Your task to perform on an android device: turn smart compose on in the gmail app Image 0: 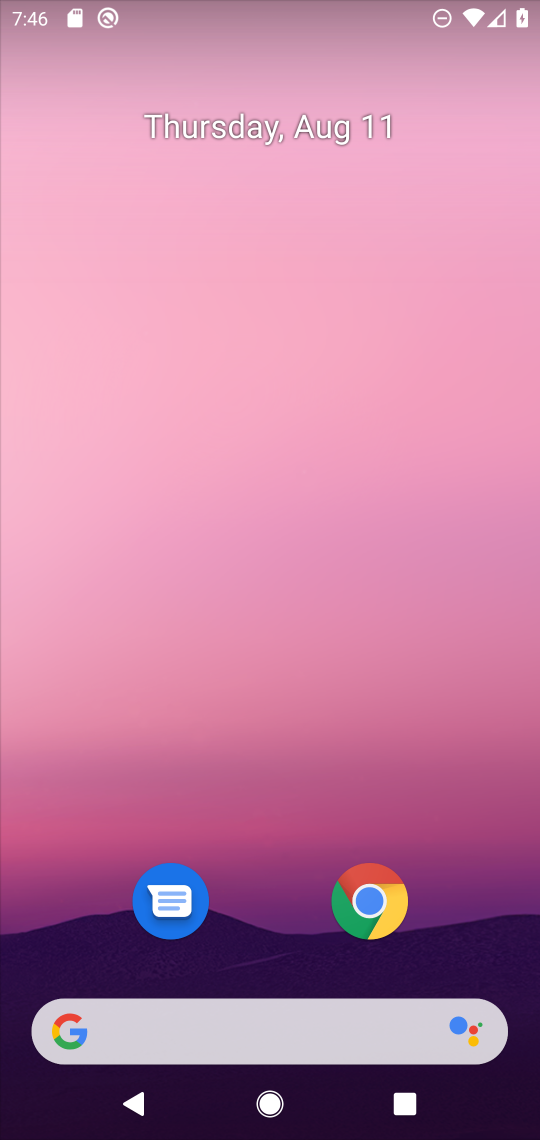
Step 0: drag from (246, 917) to (363, 155)
Your task to perform on an android device: turn smart compose on in the gmail app Image 1: 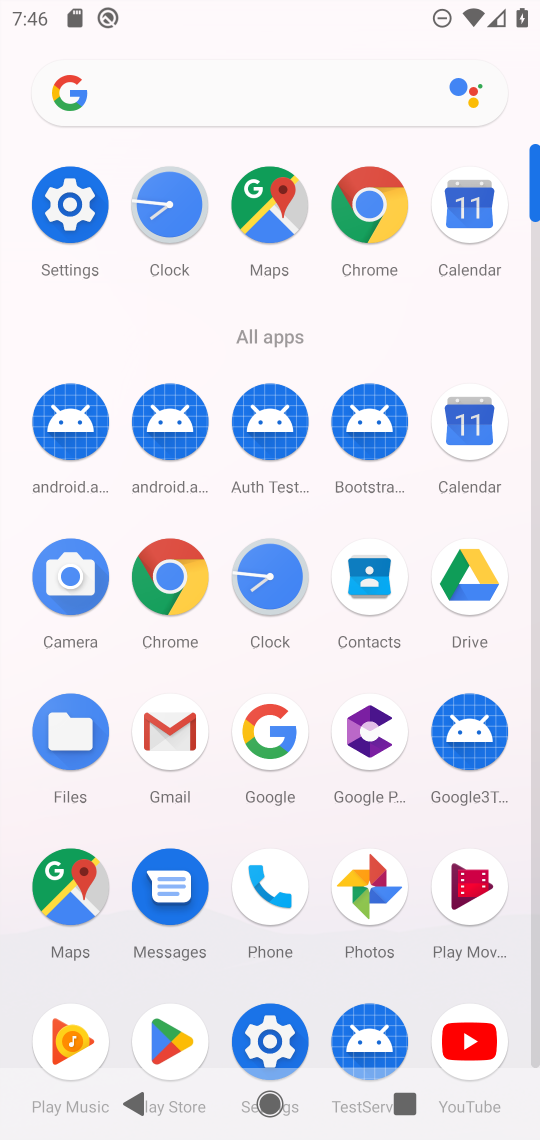
Step 1: click (168, 723)
Your task to perform on an android device: turn smart compose on in the gmail app Image 2: 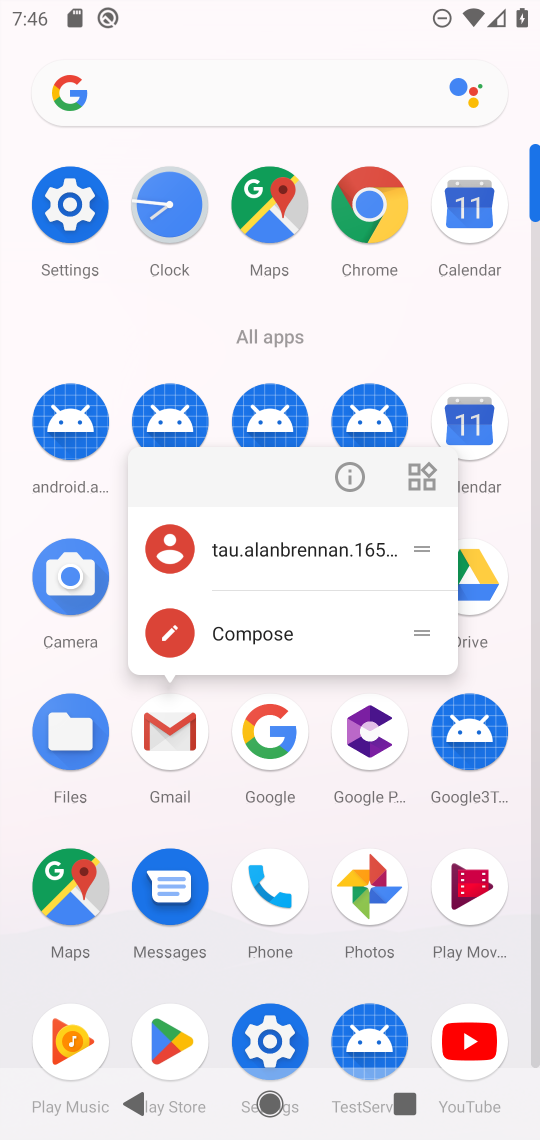
Step 2: click (168, 731)
Your task to perform on an android device: turn smart compose on in the gmail app Image 3: 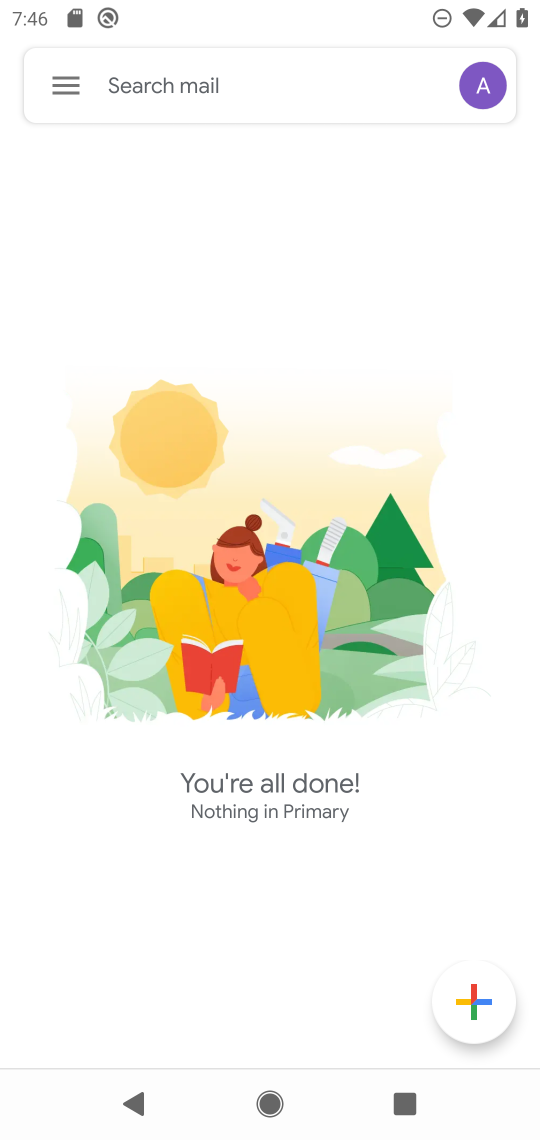
Step 3: click (65, 85)
Your task to perform on an android device: turn smart compose on in the gmail app Image 4: 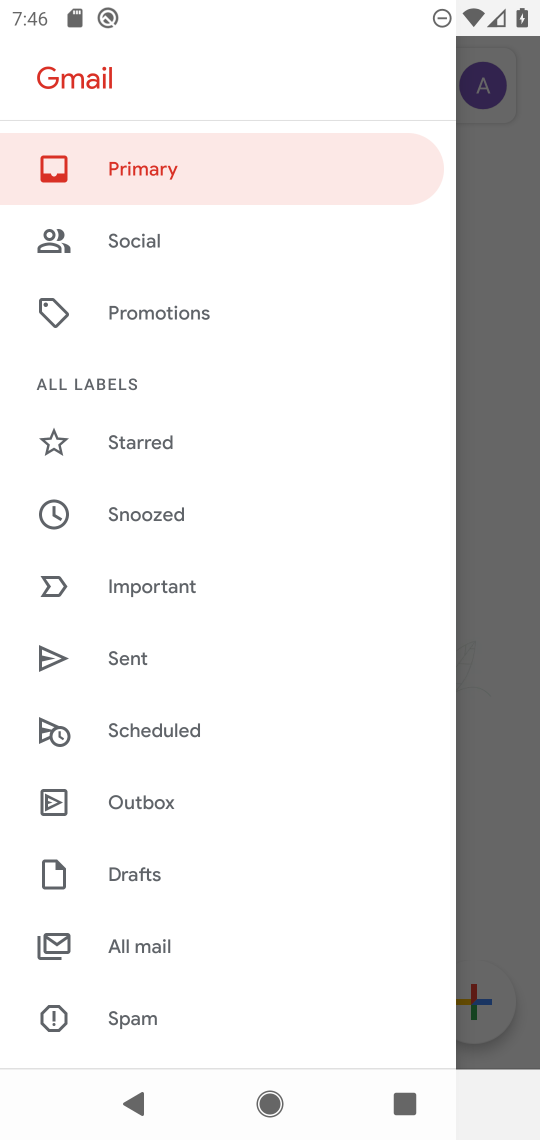
Step 4: drag from (86, 1031) to (247, 683)
Your task to perform on an android device: turn smart compose on in the gmail app Image 5: 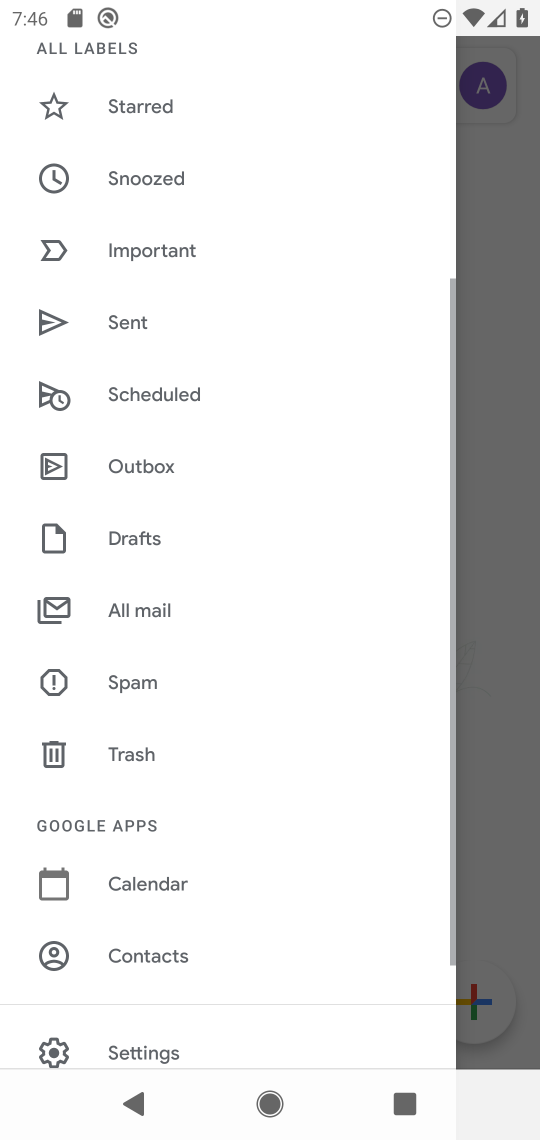
Step 5: drag from (290, 942) to (401, 468)
Your task to perform on an android device: turn smart compose on in the gmail app Image 6: 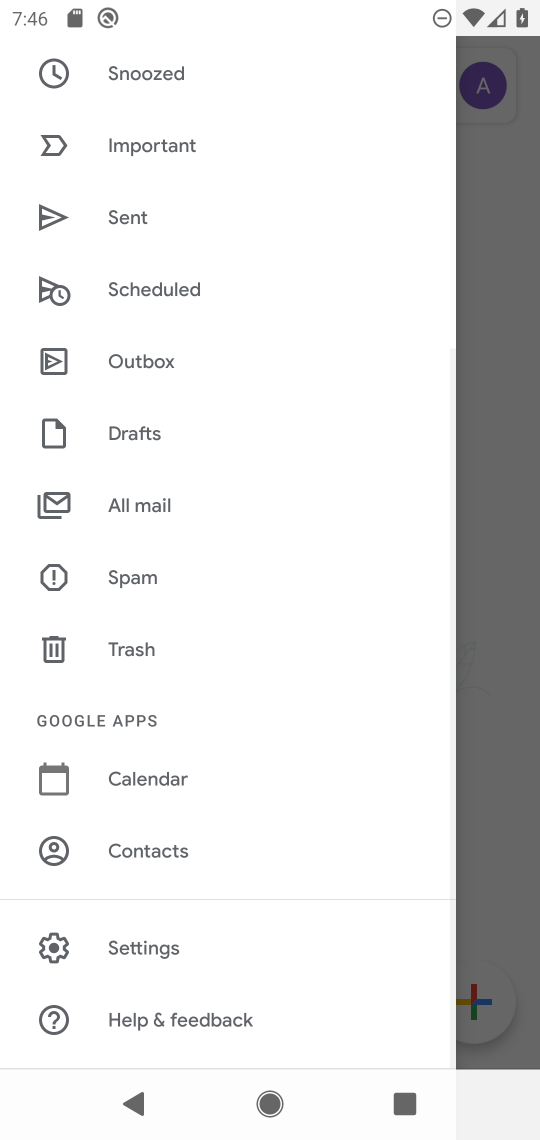
Step 6: click (129, 957)
Your task to perform on an android device: turn smart compose on in the gmail app Image 7: 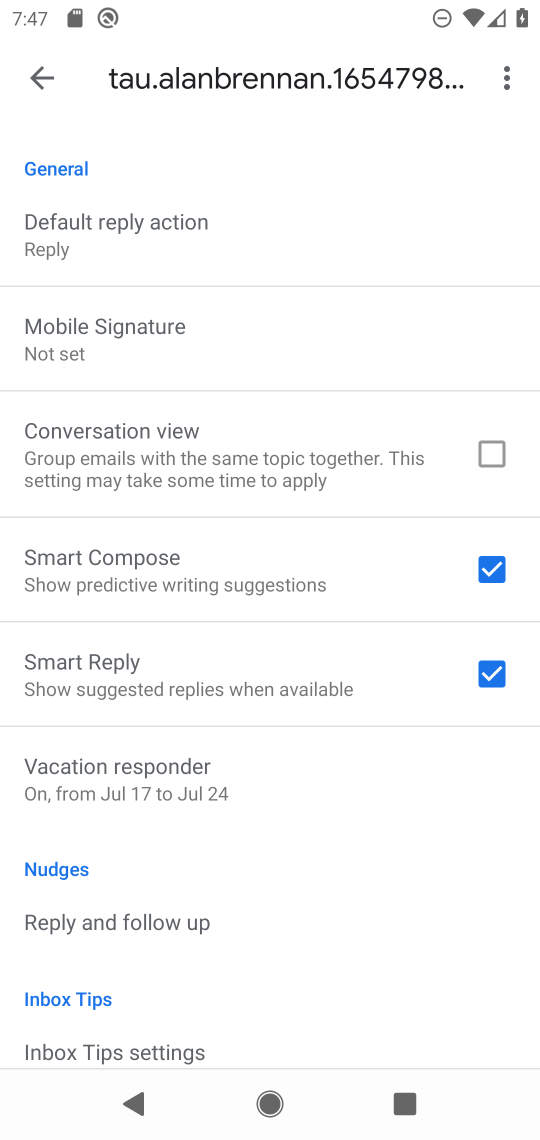
Step 7: task complete